Your task to perform on an android device: toggle airplane mode Image 0: 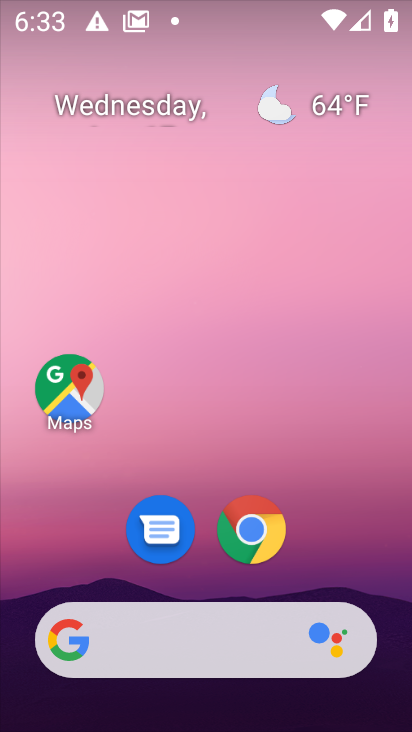
Step 0: drag from (218, 514) to (228, 193)
Your task to perform on an android device: toggle airplane mode Image 1: 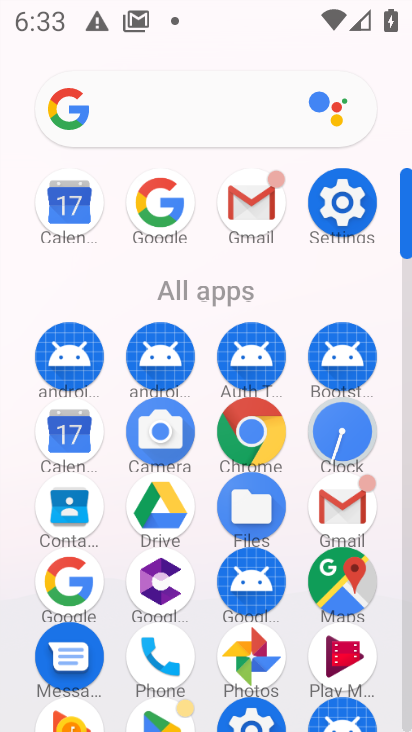
Step 1: click (337, 200)
Your task to perform on an android device: toggle airplane mode Image 2: 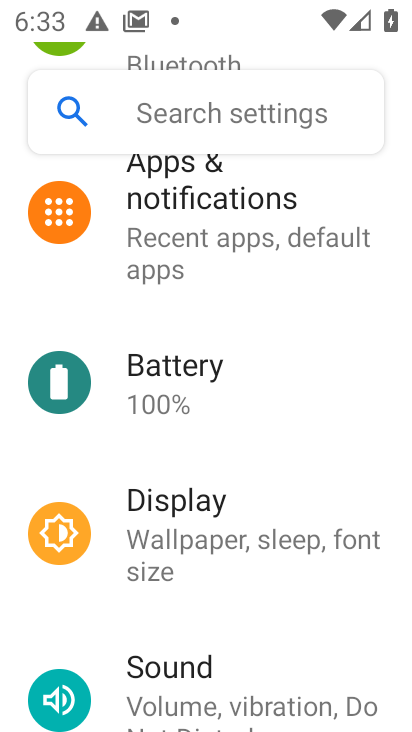
Step 2: drag from (305, 203) to (220, 688)
Your task to perform on an android device: toggle airplane mode Image 3: 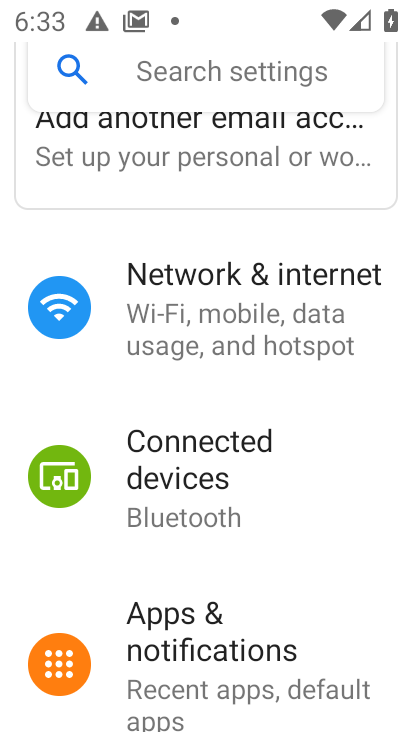
Step 3: click (187, 347)
Your task to perform on an android device: toggle airplane mode Image 4: 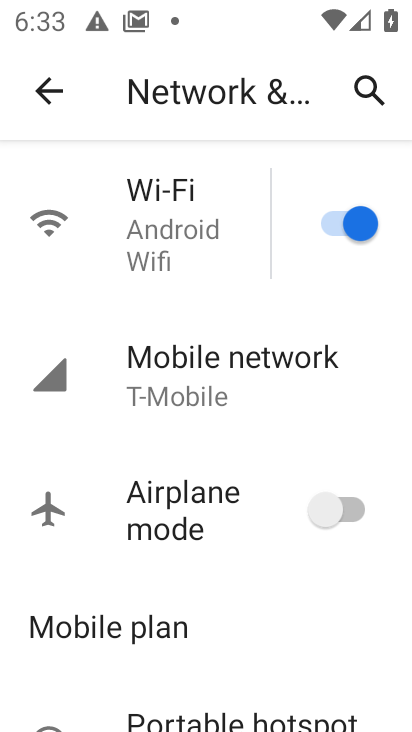
Step 4: click (356, 512)
Your task to perform on an android device: toggle airplane mode Image 5: 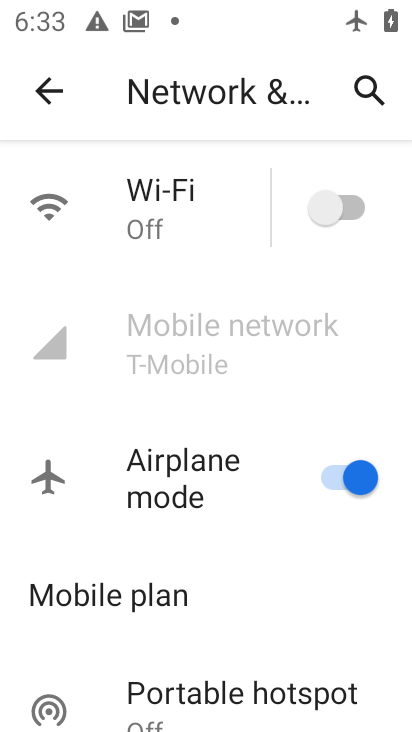
Step 5: task complete